Your task to perform on an android device: open sync settings in chrome Image 0: 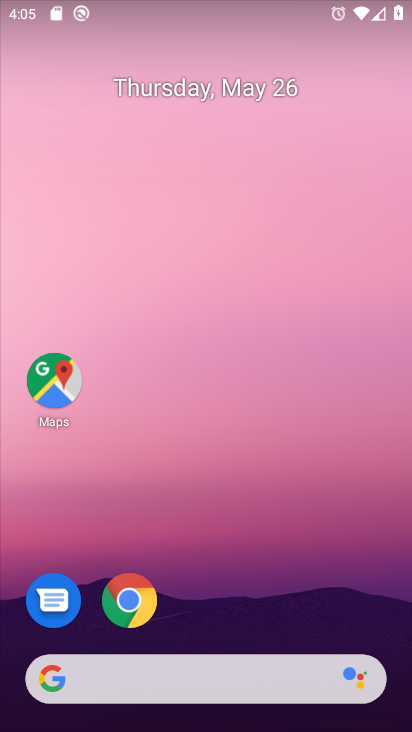
Step 0: drag from (198, 627) to (352, 62)
Your task to perform on an android device: open sync settings in chrome Image 1: 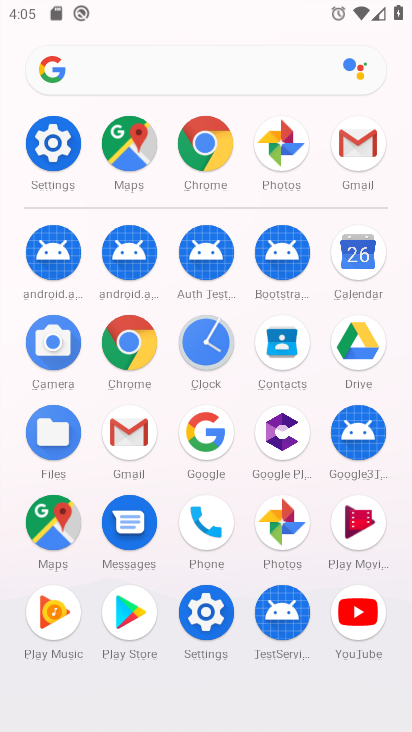
Step 1: click (134, 352)
Your task to perform on an android device: open sync settings in chrome Image 2: 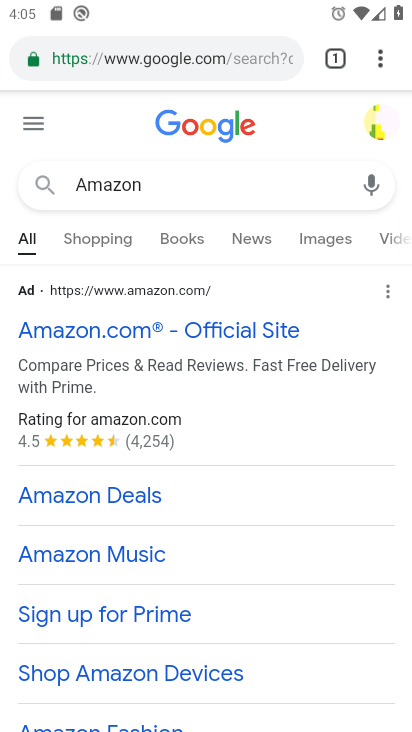
Step 2: click (376, 55)
Your task to perform on an android device: open sync settings in chrome Image 3: 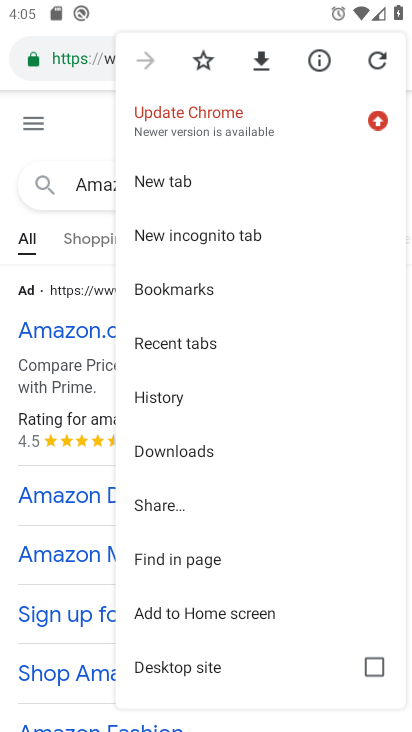
Step 3: drag from (162, 622) to (221, 315)
Your task to perform on an android device: open sync settings in chrome Image 4: 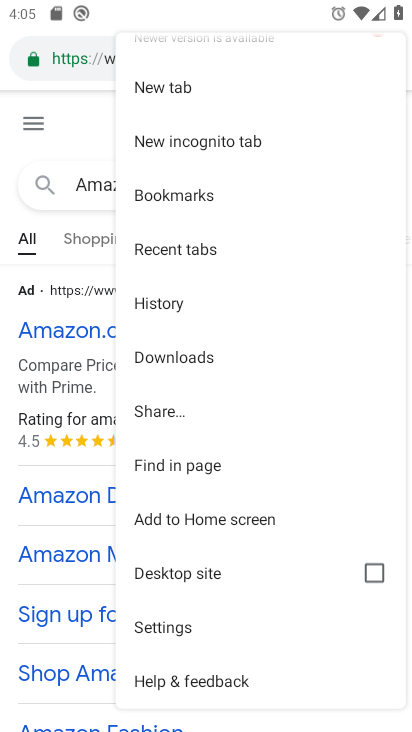
Step 4: click (171, 633)
Your task to perform on an android device: open sync settings in chrome Image 5: 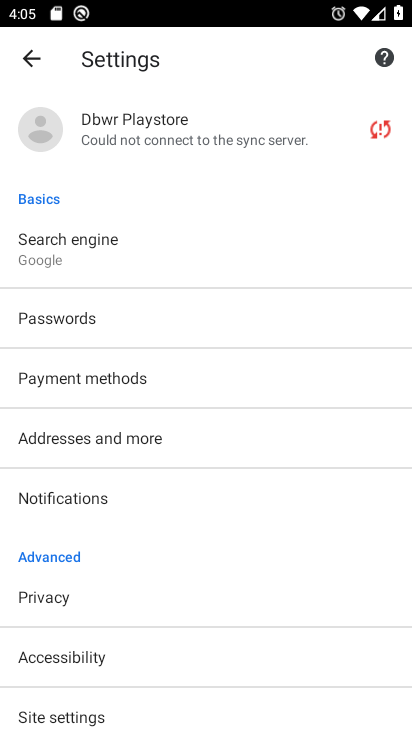
Step 5: click (154, 130)
Your task to perform on an android device: open sync settings in chrome Image 6: 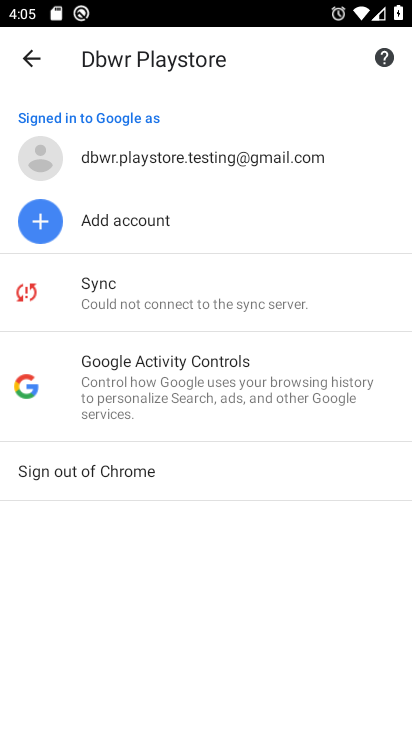
Step 6: click (180, 287)
Your task to perform on an android device: open sync settings in chrome Image 7: 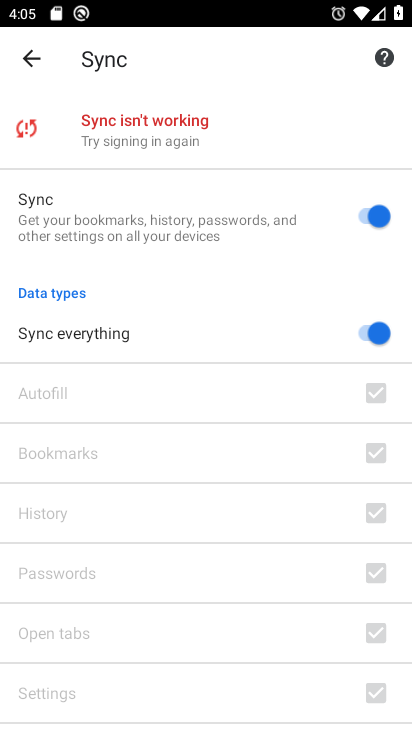
Step 7: click (164, 142)
Your task to perform on an android device: open sync settings in chrome Image 8: 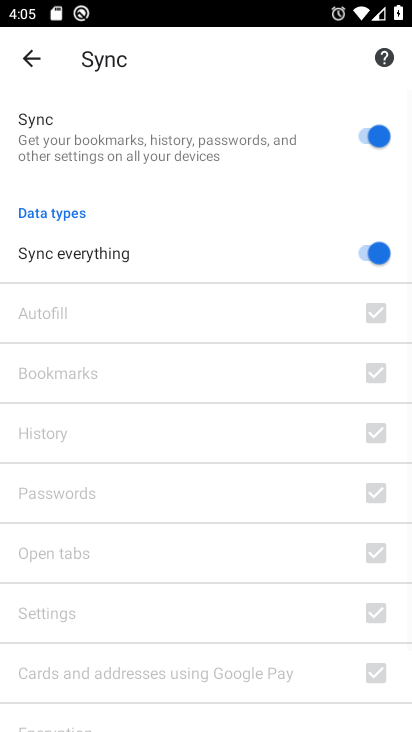
Step 8: task complete